Your task to perform on an android device: Show me the alarms in the clock app Image 0: 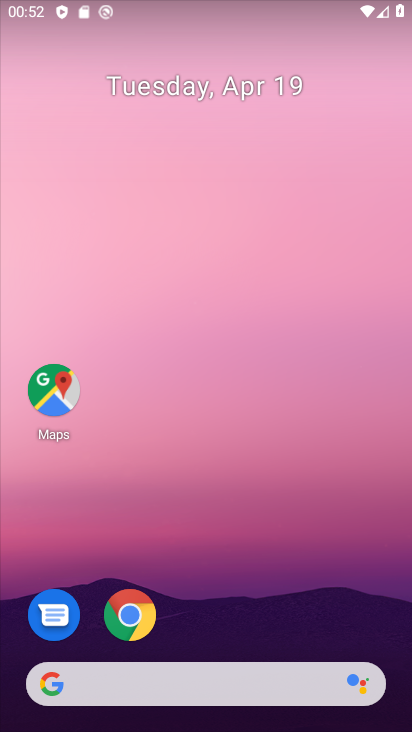
Step 0: drag from (247, 605) to (285, 221)
Your task to perform on an android device: Show me the alarms in the clock app Image 1: 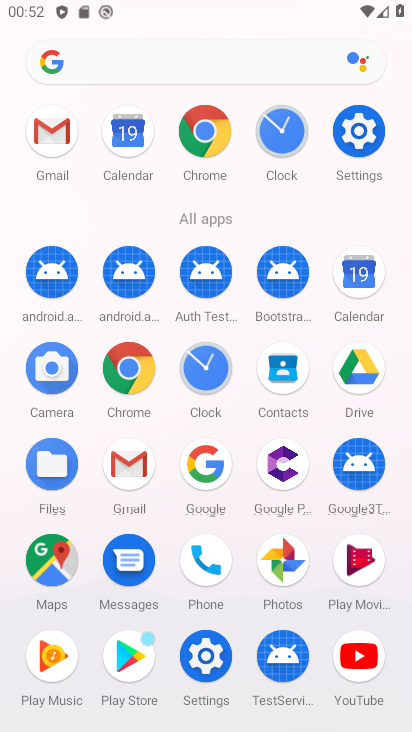
Step 1: click (215, 362)
Your task to perform on an android device: Show me the alarms in the clock app Image 2: 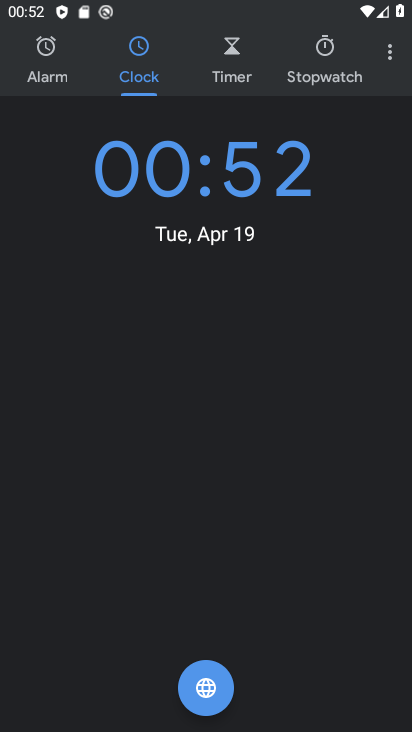
Step 2: click (53, 94)
Your task to perform on an android device: Show me the alarms in the clock app Image 3: 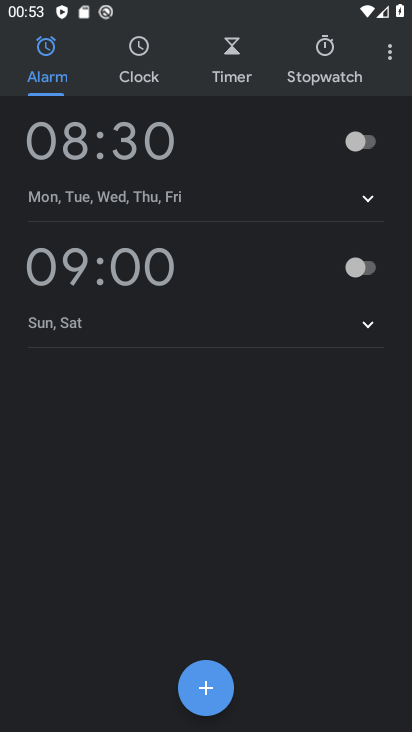
Step 3: task complete